Your task to perform on an android device: Clear all items from cart on target. Image 0: 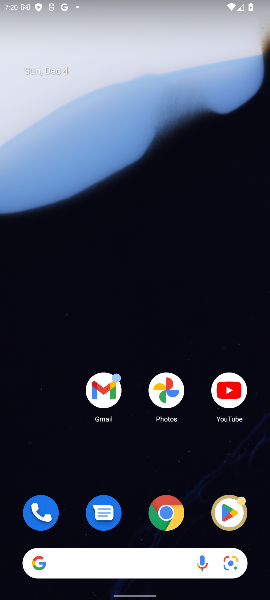
Step 0: click (169, 510)
Your task to perform on an android device: Clear all items from cart on target. Image 1: 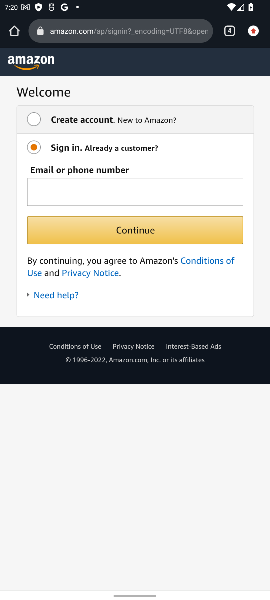
Step 1: click (231, 34)
Your task to perform on an android device: Clear all items from cart on target. Image 2: 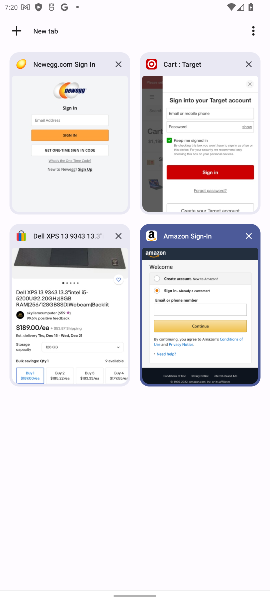
Step 2: click (209, 85)
Your task to perform on an android device: Clear all items from cart on target. Image 3: 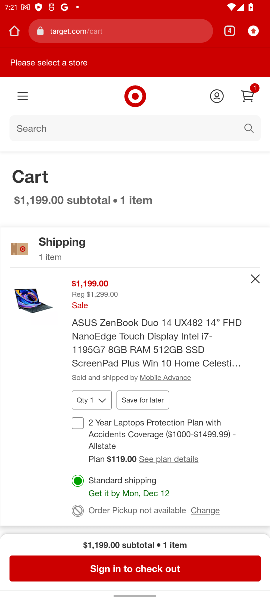
Step 3: click (261, 283)
Your task to perform on an android device: Clear all items from cart on target. Image 4: 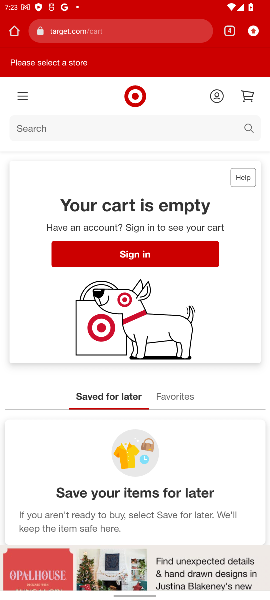
Step 4: task complete